Your task to perform on an android device: Open Yahoo.com Image 0: 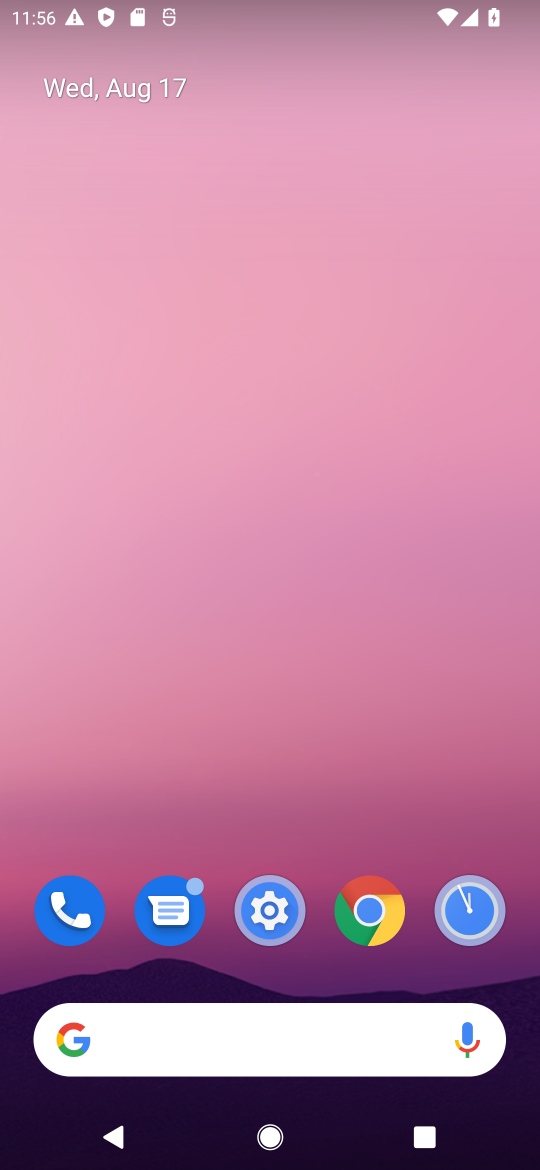
Step 0: click (374, 891)
Your task to perform on an android device: Open Yahoo.com Image 1: 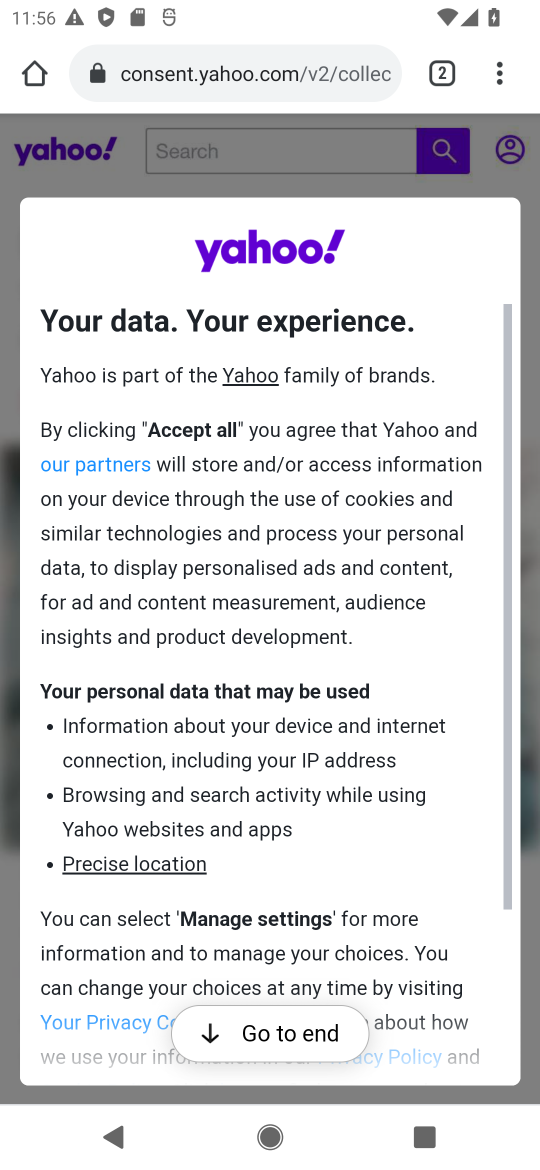
Step 1: task complete